Your task to perform on an android device: turn on location history Image 0: 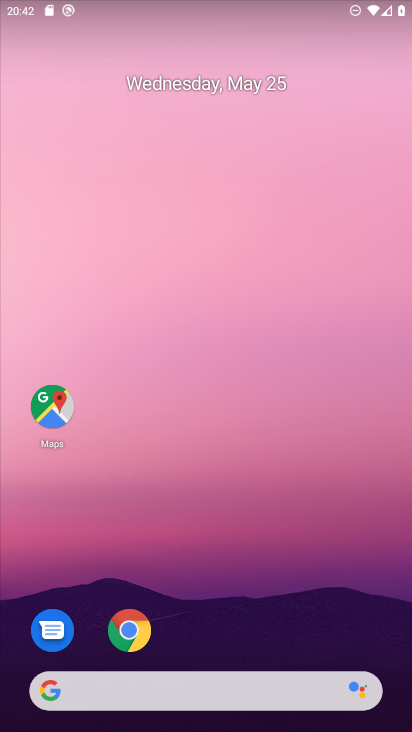
Step 0: drag from (245, 636) to (253, 105)
Your task to perform on an android device: turn on location history Image 1: 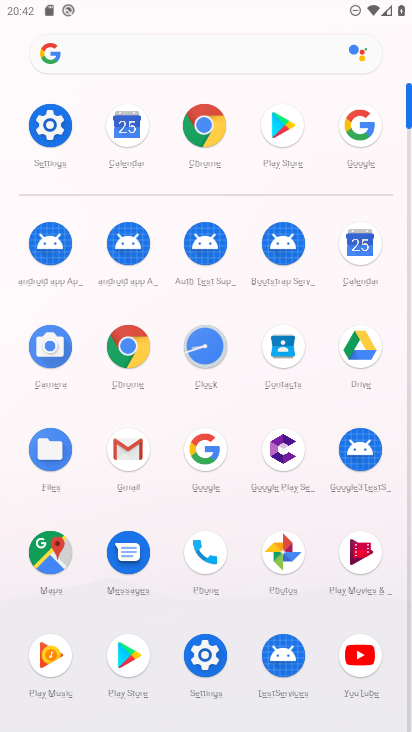
Step 1: click (206, 652)
Your task to perform on an android device: turn on location history Image 2: 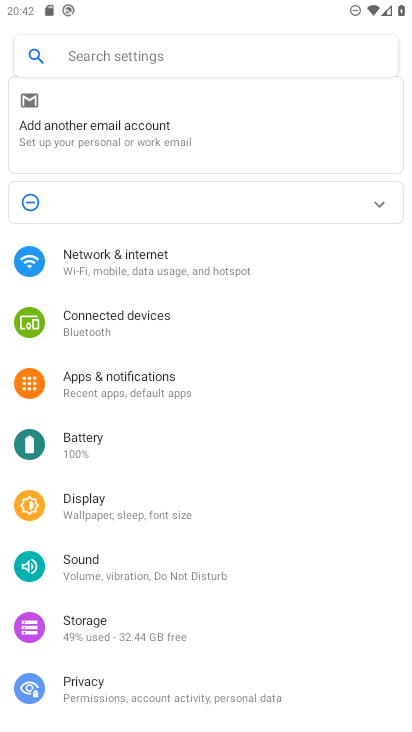
Step 2: drag from (185, 672) to (200, 343)
Your task to perform on an android device: turn on location history Image 3: 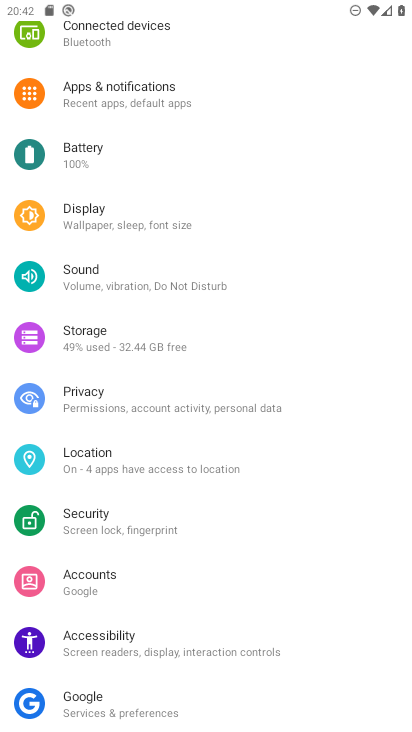
Step 3: click (91, 456)
Your task to perform on an android device: turn on location history Image 4: 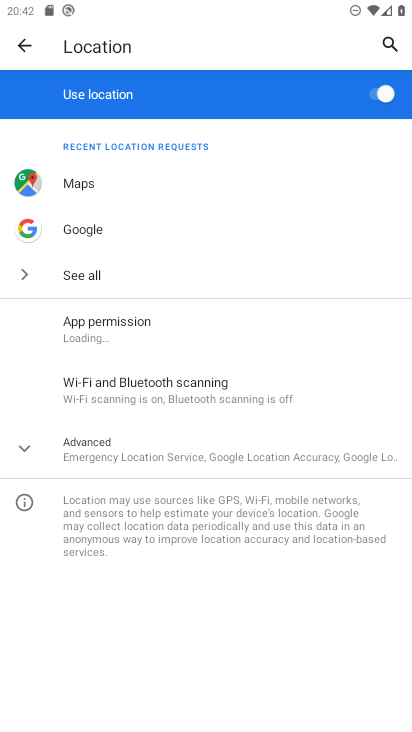
Step 4: click (142, 450)
Your task to perform on an android device: turn on location history Image 5: 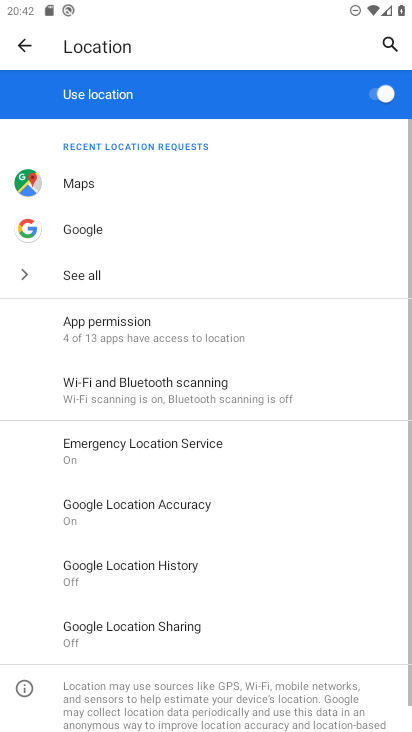
Step 5: click (152, 570)
Your task to perform on an android device: turn on location history Image 6: 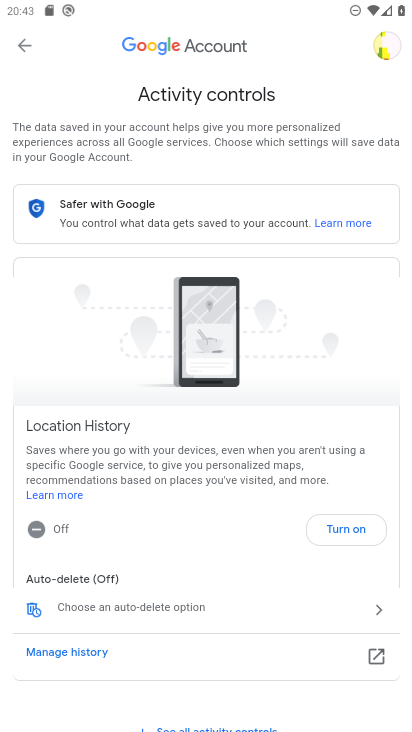
Step 6: click (351, 534)
Your task to perform on an android device: turn on location history Image 7: 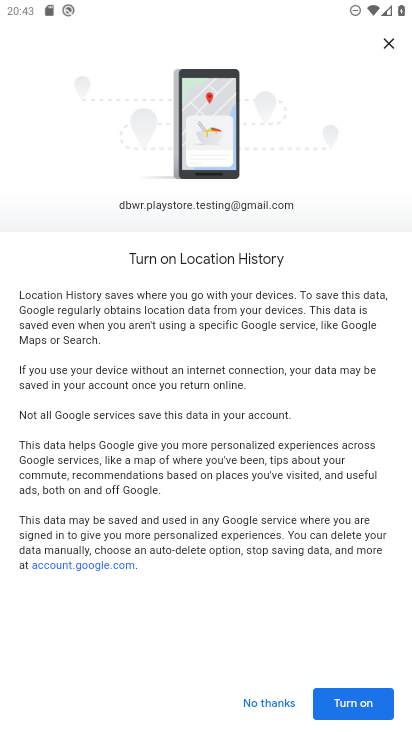
Step 7: click (354, 705)
Your task to perform on an android device: turn on location history Image 8: 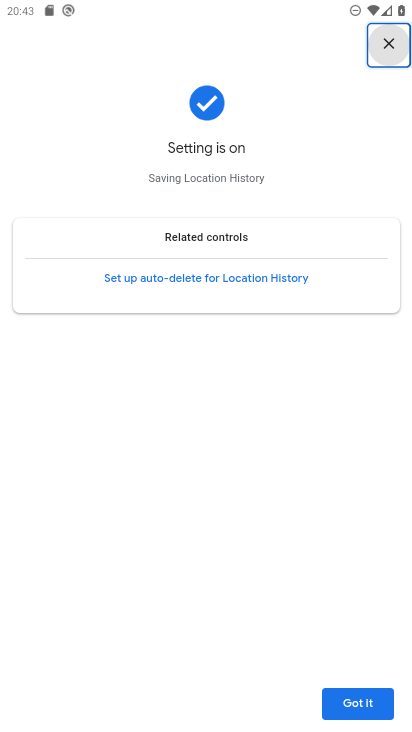
Step 8: click (356, 703)
Your task to perform on an android device: turn on location history Image 9: 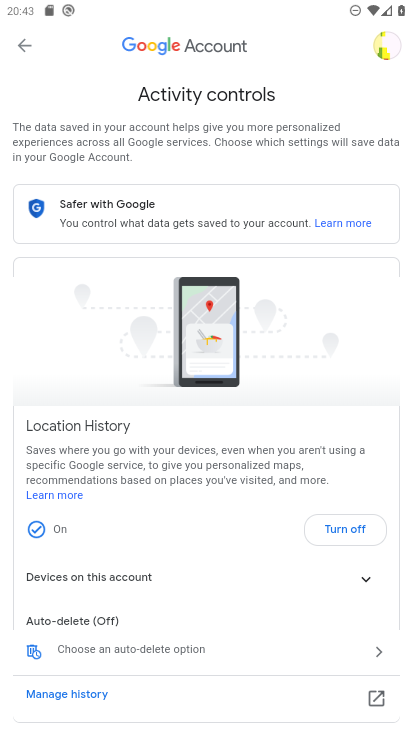
Step 9: task complete